Your task to perform on an android device: turn on the 24-hour format for clock Image 0: 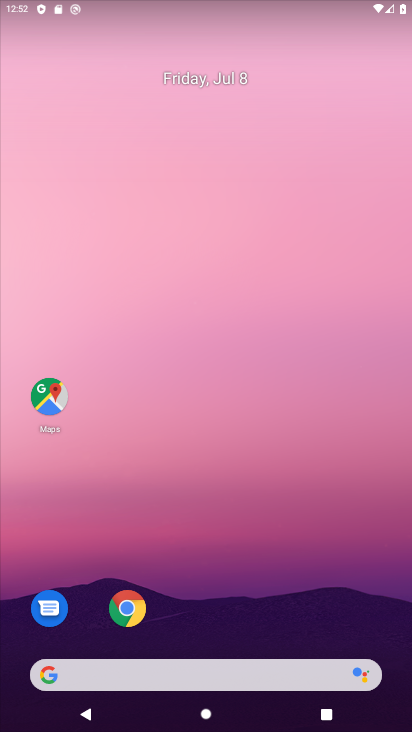
Step 0: drag from (298, 619) to (210, 115)
Your task to perform on an android device: turn on the 24-hour format for clock Image 1: 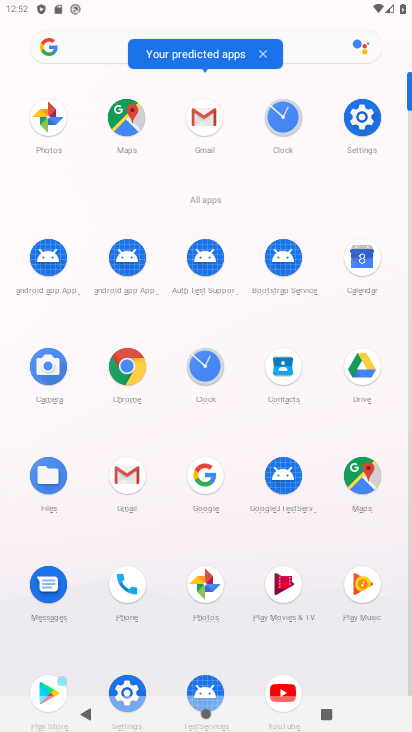
Step 1: click (276, 109)
Your task to perform on an android device: turn on the 24-hour format for clock Image 2: 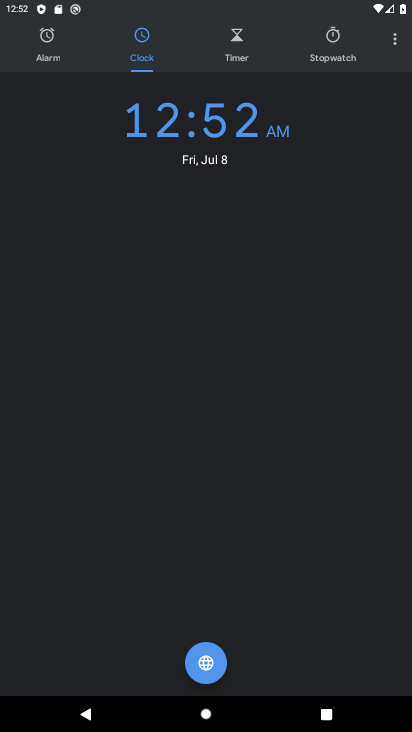
Step 2: click (397, 40)
Your task to perform on an android device: turn on the 24-hour format for clock Image 3: 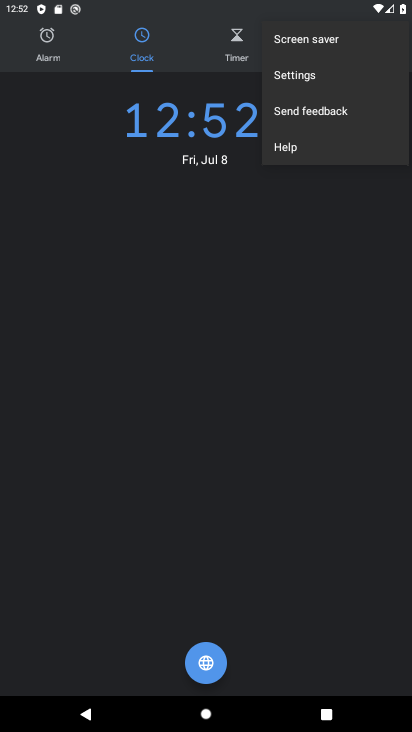
Step 3: click (315, 71)
Your task to perform on an android device: turn on the 24-hour format for clock Image 4: 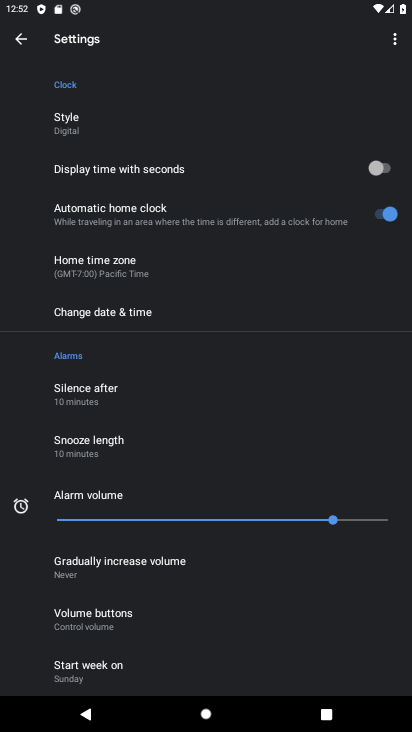
Step 4: click (135, 320)
Your task to perform on an android device: turn on the 24-hour format for clock Image 5: 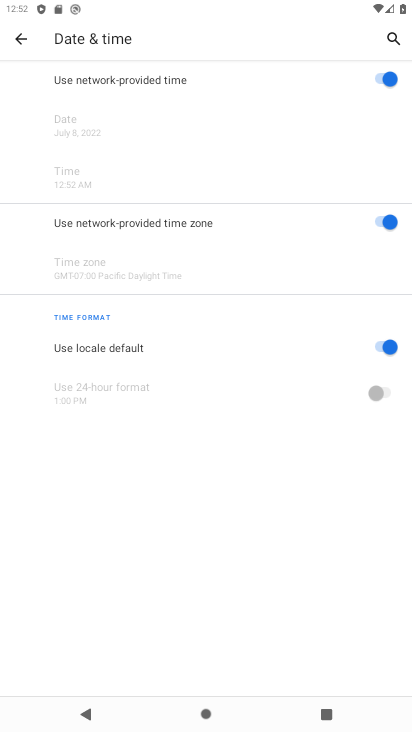
Step 5: click (344, 346)
Your task to perform on an android device: turn on the 24-hour format for clock Image 6: 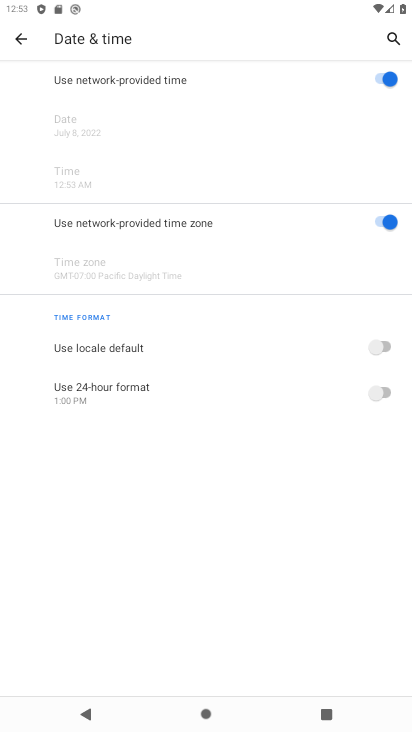
Step 6: click (381, 390)
Your task to perform on an android device: turn on the 24-hour format for clock Image 7: 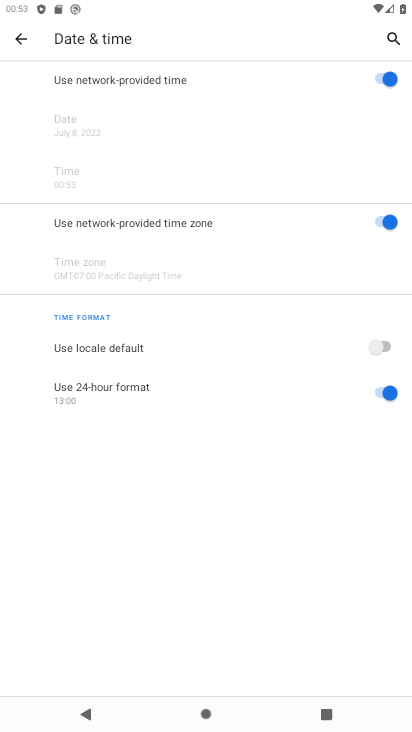
Step 7: task complete